Your task to perform on an android device: Go to notification settings Image 0: 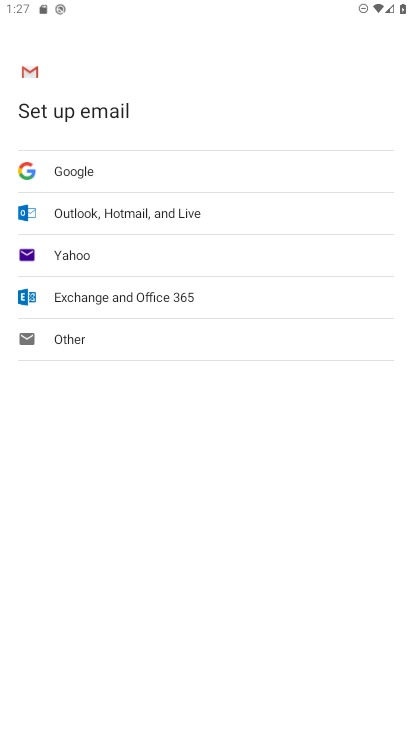
Step 0: press home button
Your task to perform on an android device: Go to notification settings Image 1: 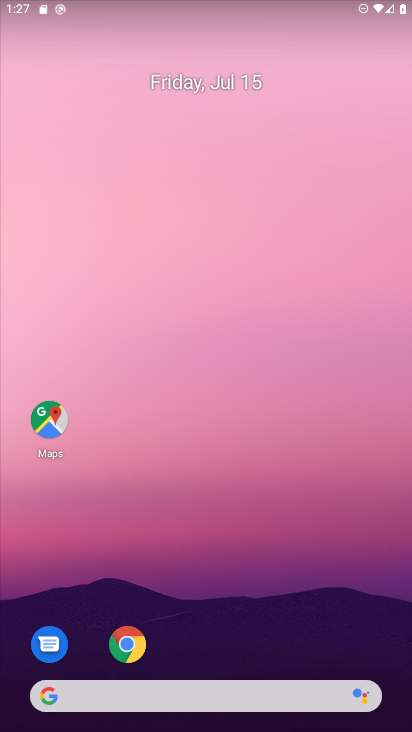
Step 1: drag from (409, 521) to (383, 124)
Your task to perform on an android device: Go to notification settings Image 2: 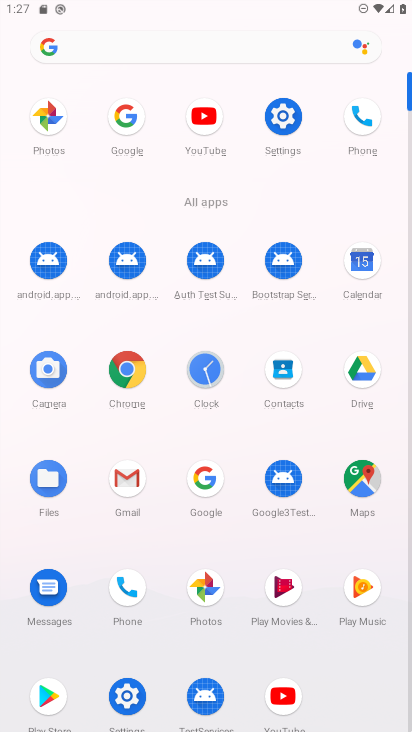
Step 2: click (288, 109)
Your task to perform on an android device: Go to notification settings Image 3: 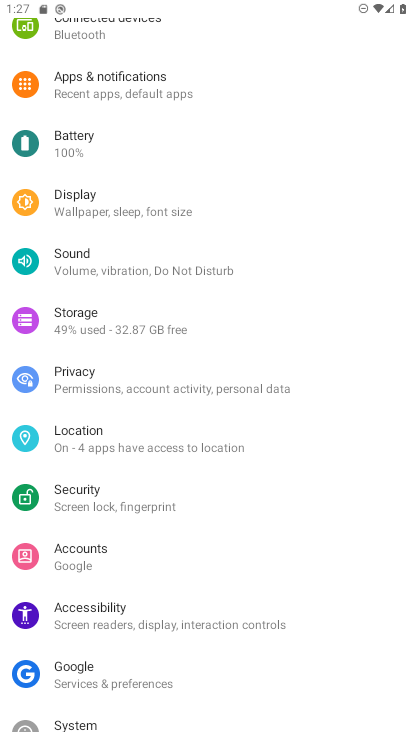
Step 3: click (154, 73)
Your task to perform on an android device: Go to notification settings Image 4: 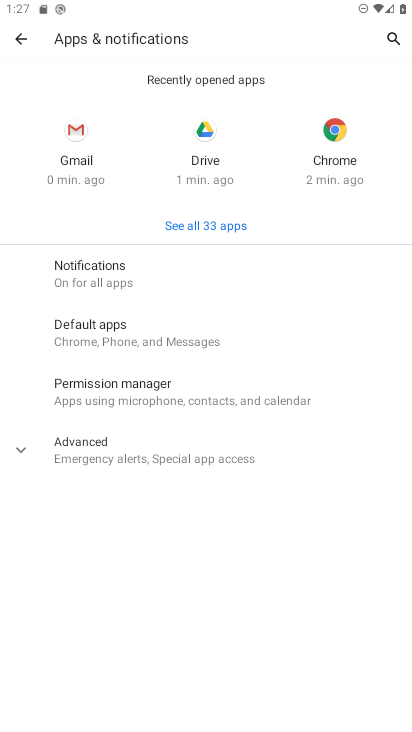
Step 4: click (82, 257)
Your task to perform on an android device: Go to notification settings Image 5: 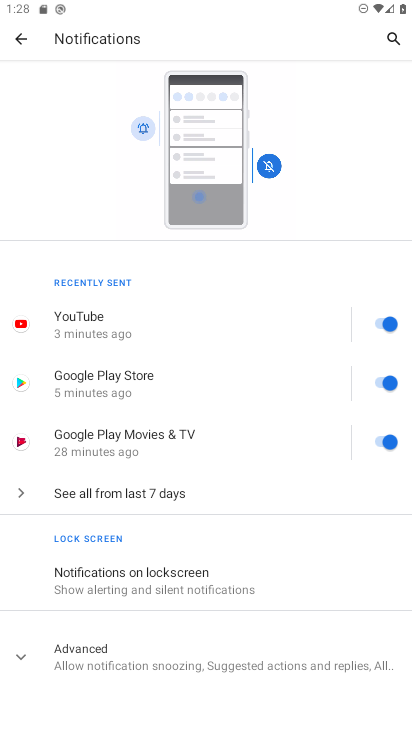
Step 5: click (25, 654)
Your task to perform on an android device: Go to notification settings Image 6: 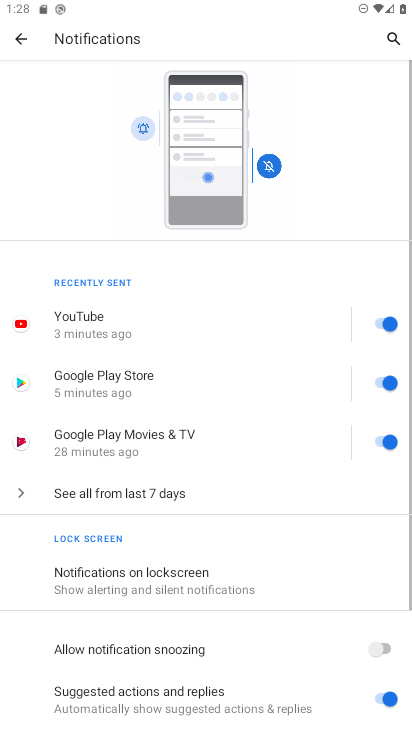
Step 6: task complete